Your task to perform on an android device: change the clock style Image 0: 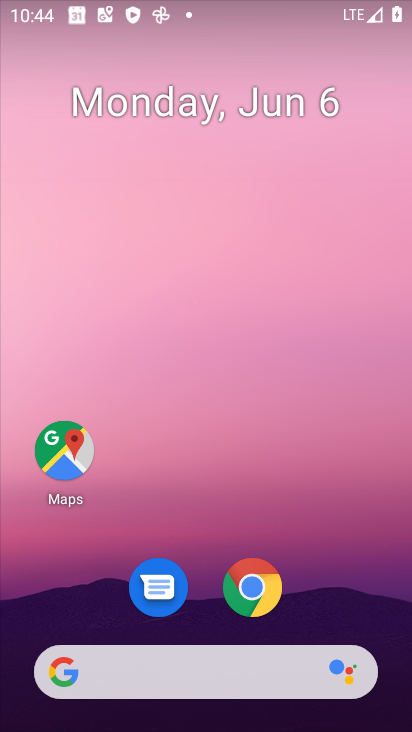
Step 0: drag from (233, 721) to (377, 25)
Your task to perform on an android device: change the clock style Image 1: 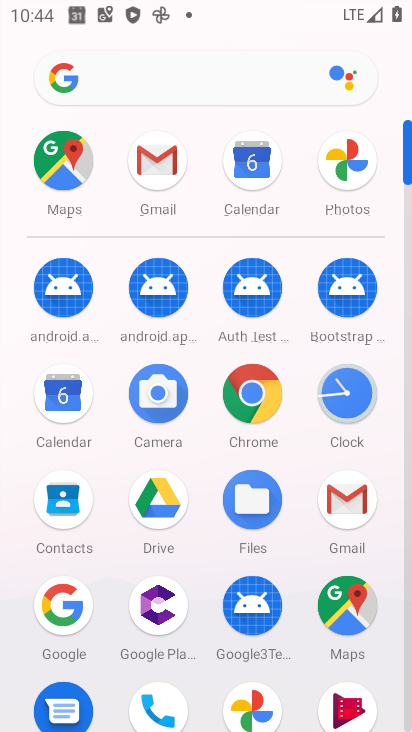
Step 1: click (325, 375)
Your task to perform on an android device: change the clock style Image 2: 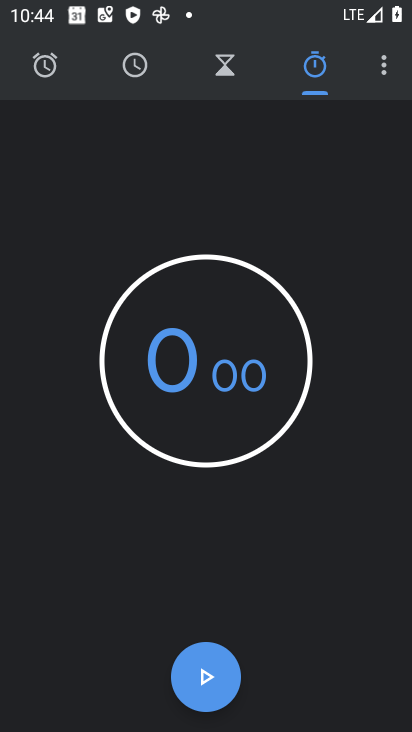
Step 2: click (384, 56)
Your task to perform on an android device: change the clock style Image 3: 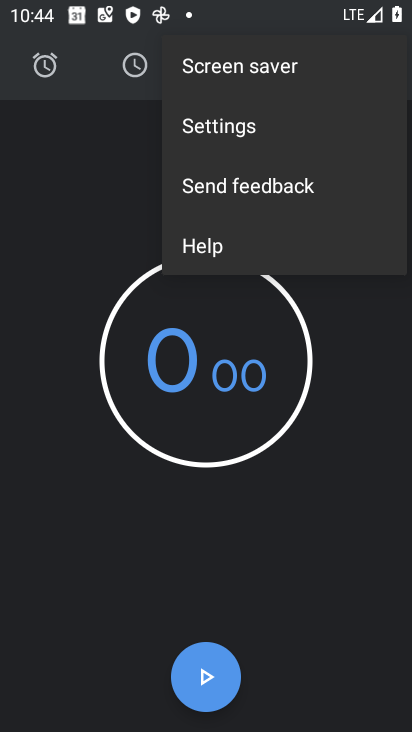
Step 3: click (277, 132)
Your task to perform on an android device: change the clock style Image 4: 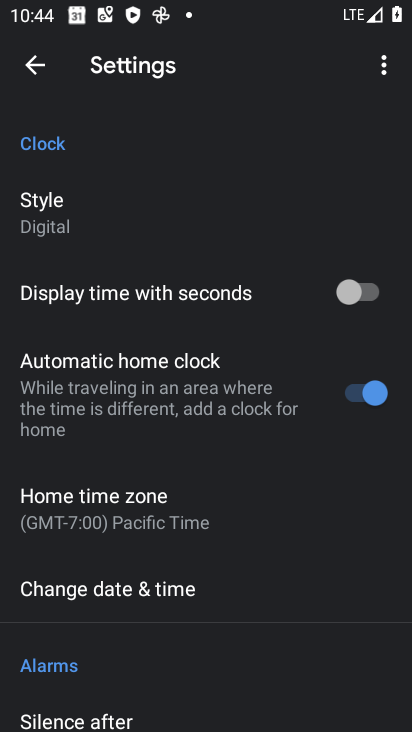
Step 4: click (64, 209)
Your task to perform on an android device: change the clock style Image 5: 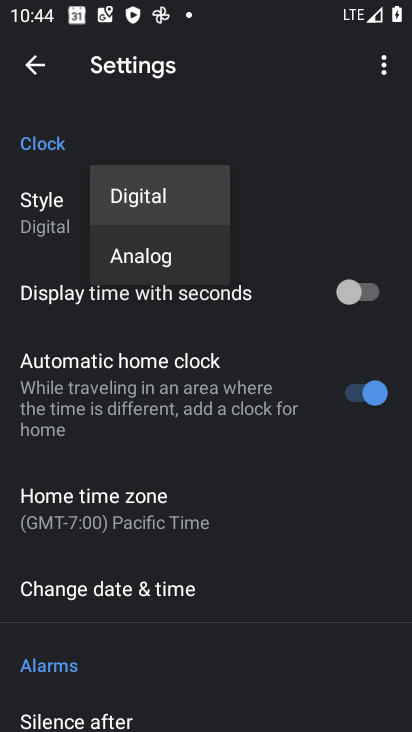
Step 5: click (133, 248)
Your task to perform on an android device: change the clock style Image 6: 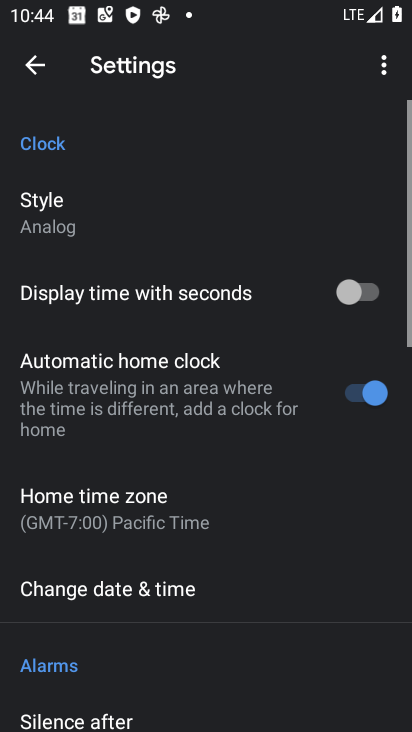
Step 6: task complete